Your task to perform on an android device: show emergency info Image 0: 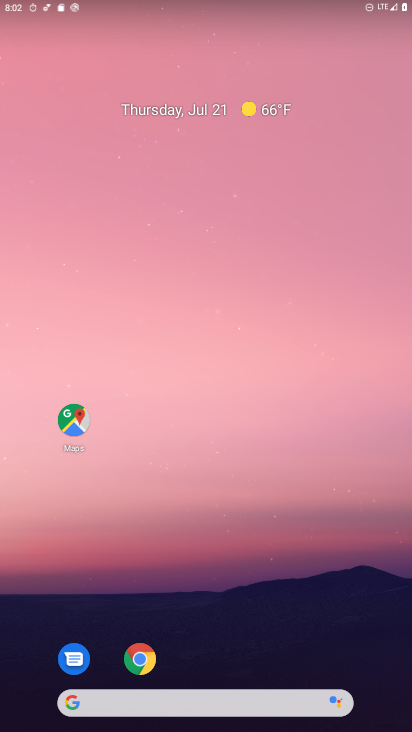
Step 0: click (266, 119)
Your task to perform on an android device: show emergency info Image 1: 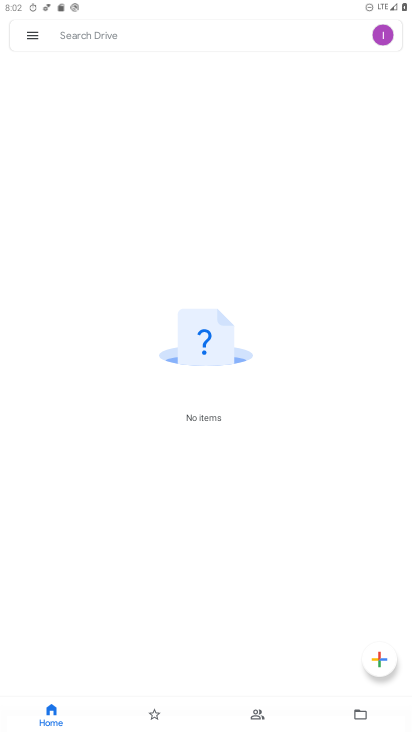
Step 1: press home button
Your task to perform on an android device: show emergency info Image 2: 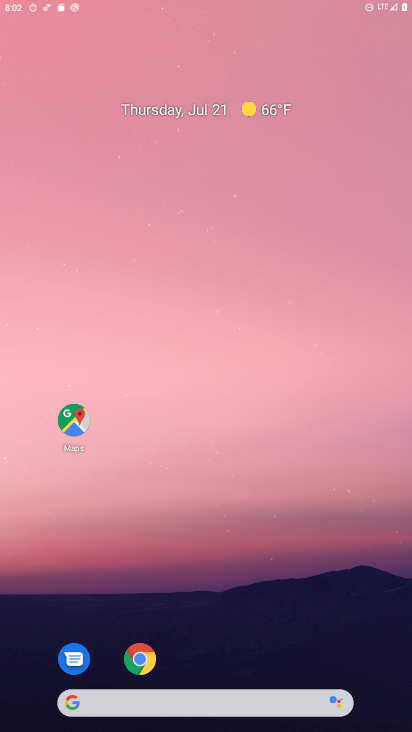
Step 2: drag from (212, 633) to (232, 10)
Your task to perform on an android device: show emergency info Image 3: 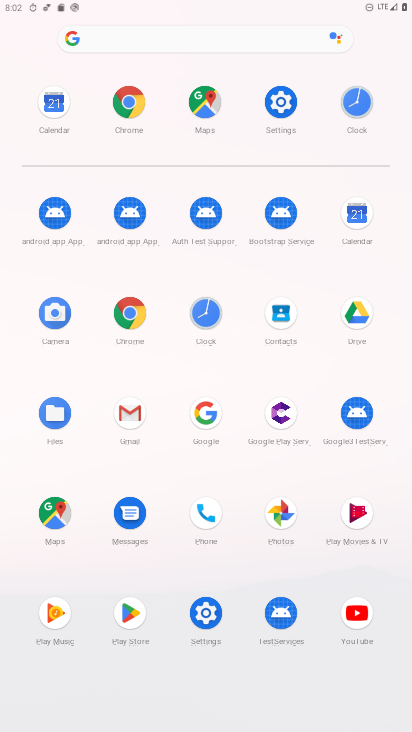
Step 3: click (285, 106)
Your task to perform on an android device: show emergency info Image 4: 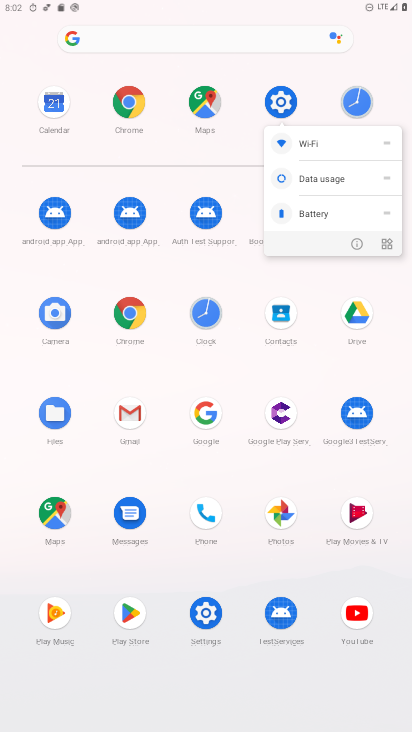
Step 4: click (359, 241)
Your task to perform on an android device: show emergency info Image 5: 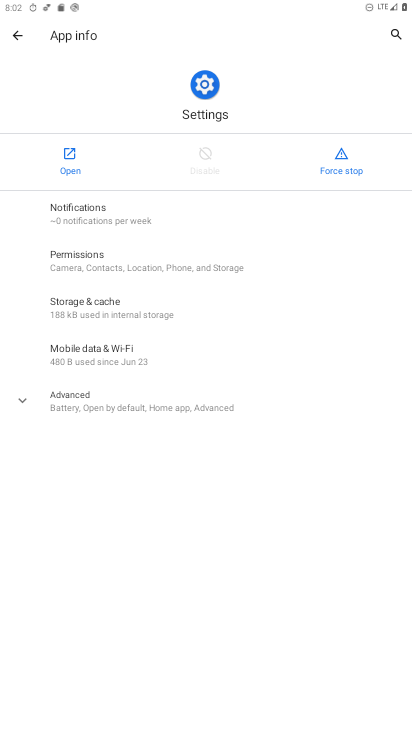
Step 5: click (67, 152)
Your task to perform on an android device: show emergency info Image 6: 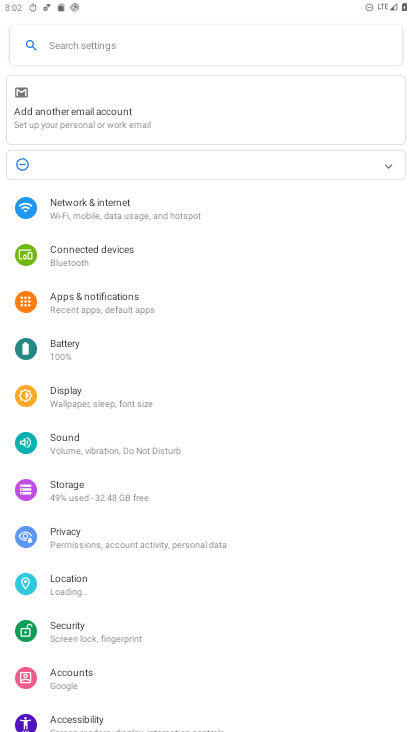
Step 6: drag from (160, 599) to (205, 3)
Your task to perform on an android device: show emergency info Image 7: 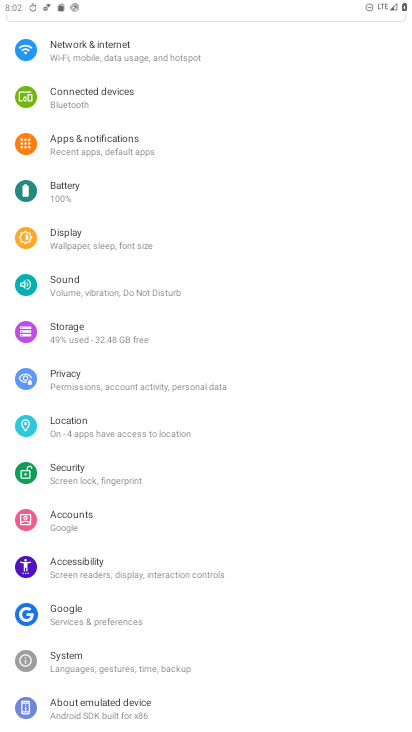
Step 7: click (111, 705)
Your task to perform on an android device: show emergency info Image 8: 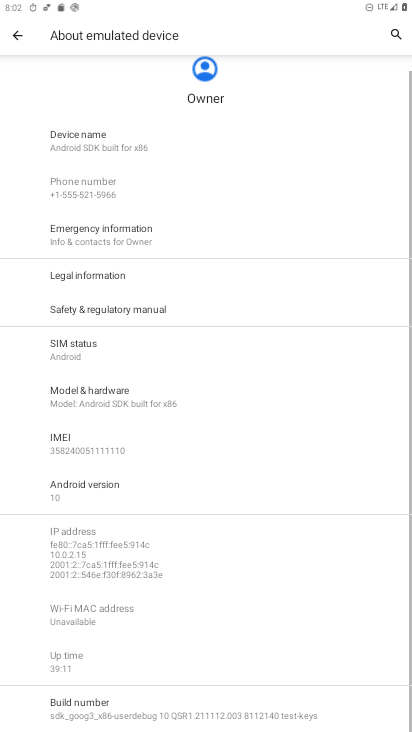
Step 8: click (137, 236)
Your task to perform on an android device: show emergency info Image 9: 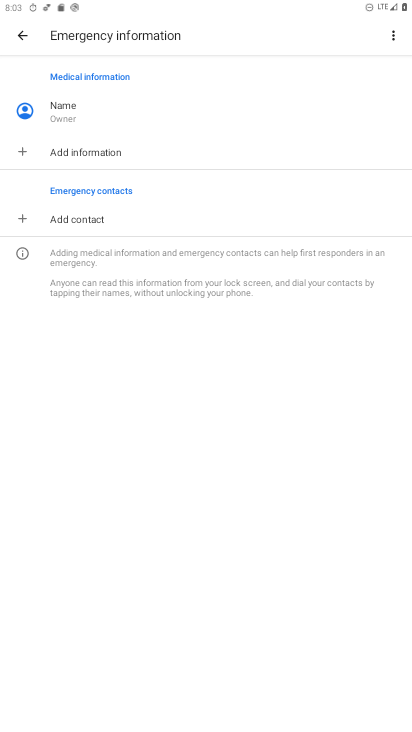
Step 9: task complete